Your task to perform on an android device: Play the last video I watched on Youtube Image 0: 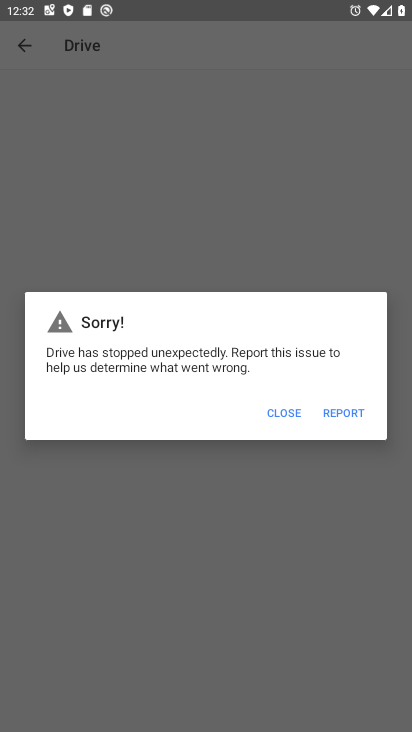
Step 0: press home button
Your task to perform on an android device: Play the last video I watched on Youtube Image 1: 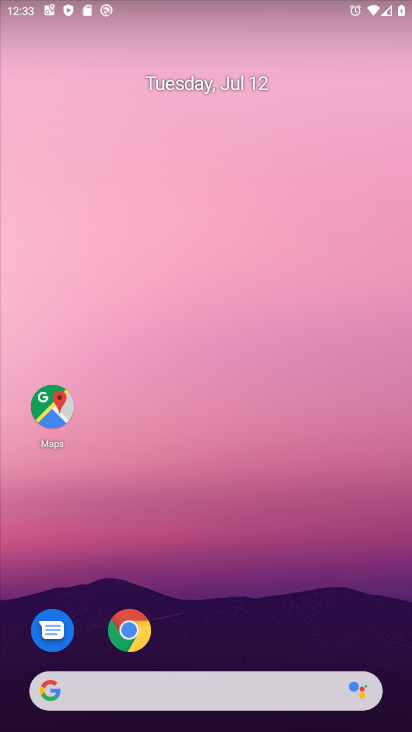
Step 1: drag from (249, 695) to (290, 191)
Your task to perform on an android device: Play the last video I watched on Youtube Image 2: 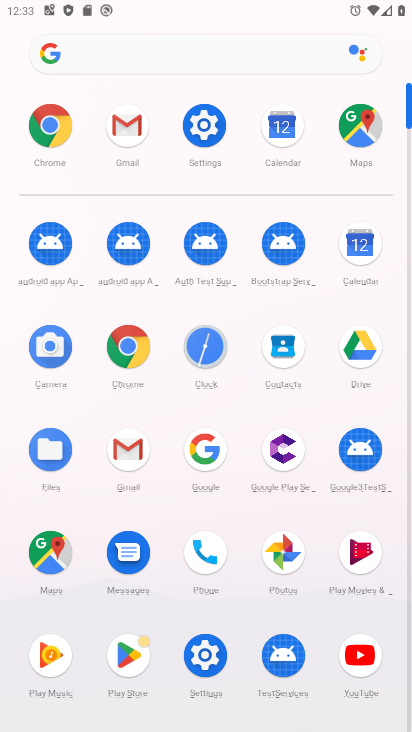
Step 2: click (361, 655)
Your task to perform on an android device: Play the last video I watched on Youtube Image 3: 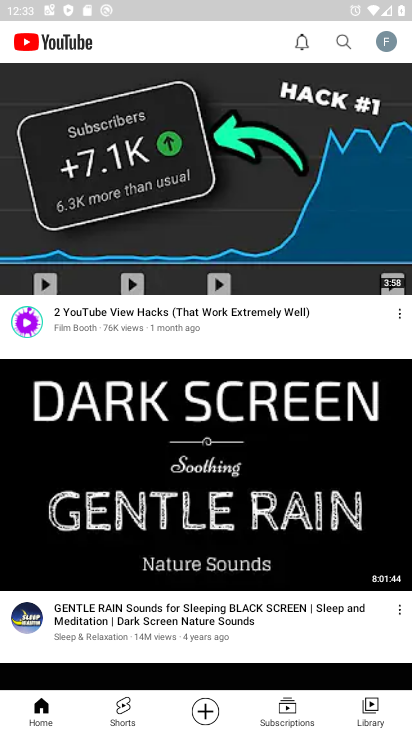
Step 3: click (369, 708)
Your task to perform on an android device: Play the last video I watched on Youtube Image 4: 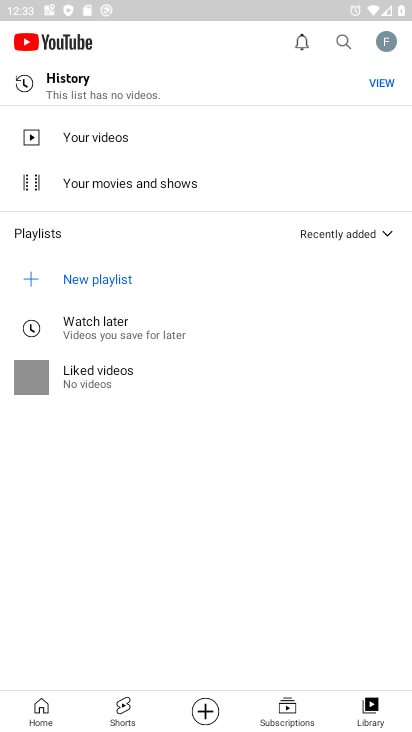
Step 4: click (382, 81)
Your task to perform on an android device: Play the last video I watched on Youtube Image 5: 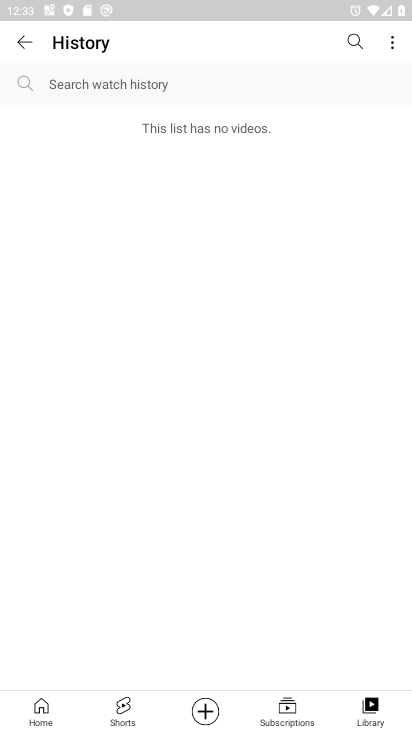
Step 5: click (12, 37)
Your task to perform on an android device: Play the last video I watched on Youtube Image 6: 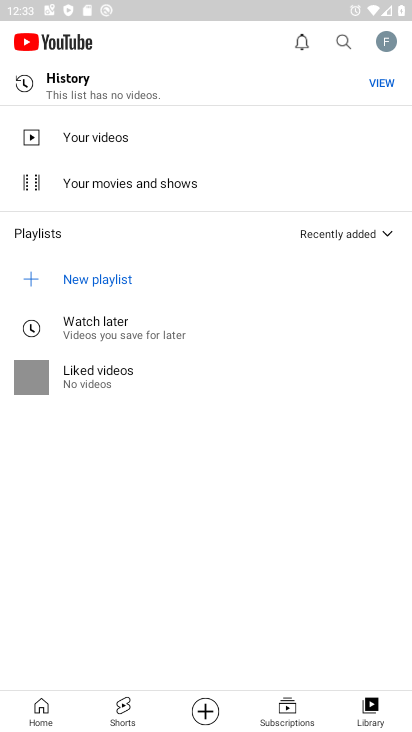
Step 6: click (314, 226)
Your task to perform on an android device: Play the last video I watched on Youtube Image 7: 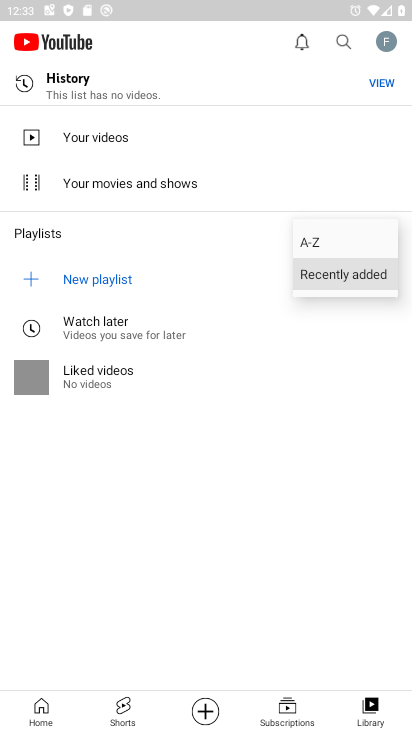
Step 7: click (337, 268)
Your task to perform on an android device: Play the last video I watched on Youtube Image 8: 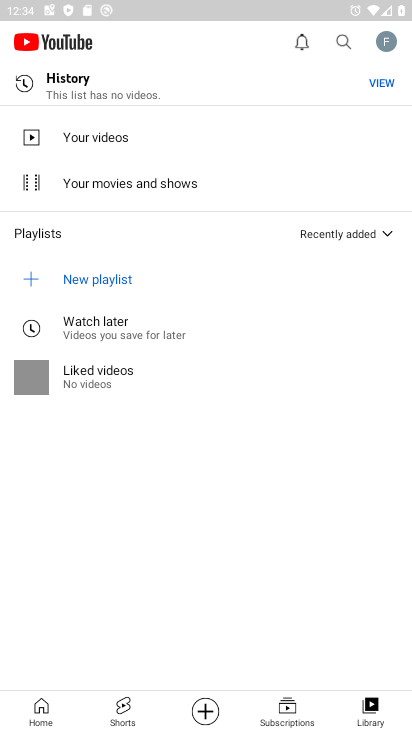
Step 8: click (105, 131)
Your task to perform on an android device: Play the last video I watched on Youtube Image 9: 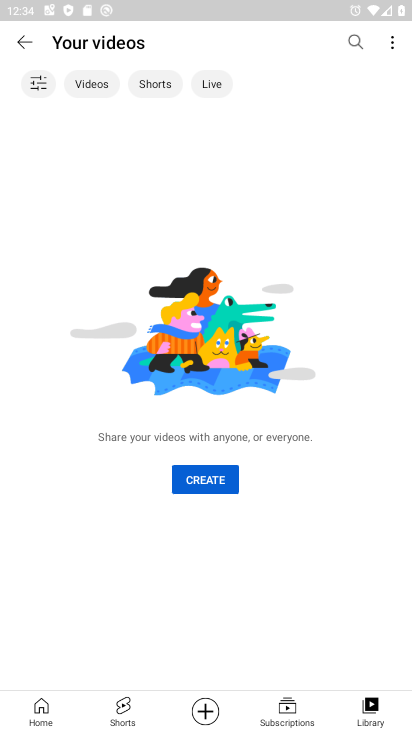
Step 9: task complete